Your task to perform on an android device: Open the calendar app, open the side menu, and click the "Day" option Image 0: 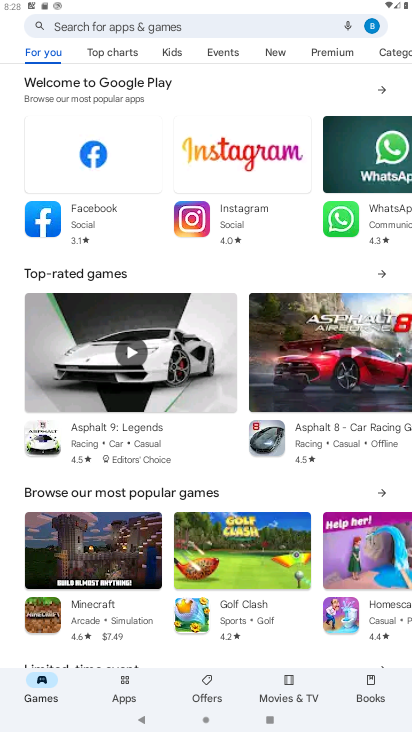
Step 0: press home button
Your task to perform on an android device: Open the calendar app, open the side menu, and click the "Day" option Image 1: 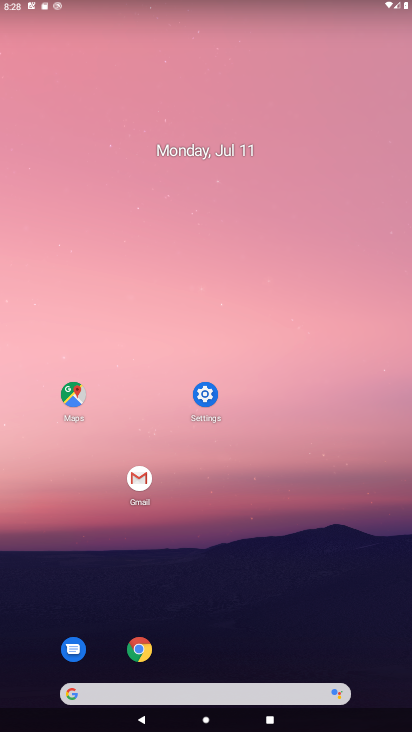
Step 1: drag from (382, 596) to (343, 131)
Your task to perform on an android device: Open the calendar app, open the side menu, and click the "Day" option Image 2: 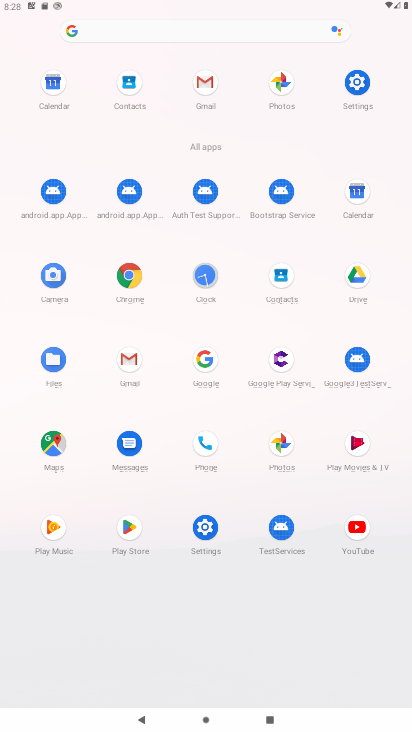
Step 2: click (358, 195)
Your task to perform on an android device: Open the calendar app, open the side menu, and click the "Day" option Image 3: 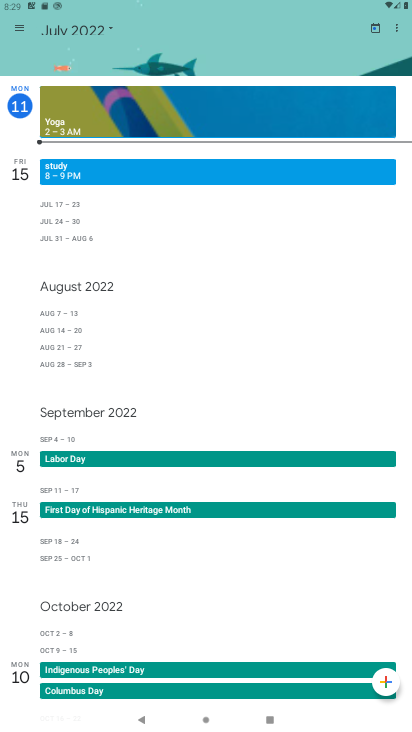
Step 3: click (14, 25)
Your task to perform on an android device: Open the calendar app, open the side menu, and click the "Day" option Image 4: 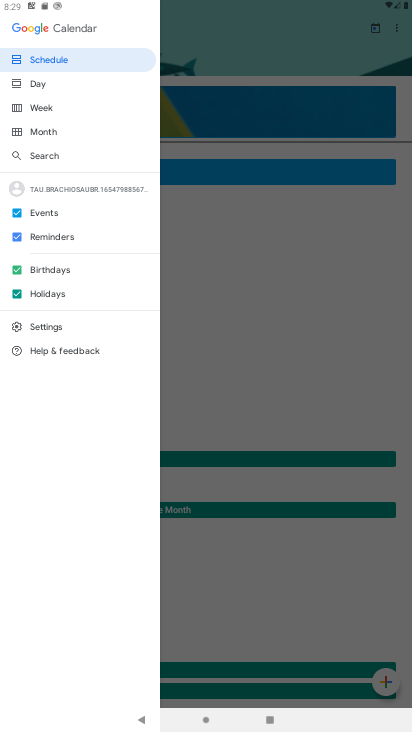
Step 4: click (36, 85)
Your task to perform on an android device: Open the calendar app, open the side menu, and click the "Day" option Image 5: 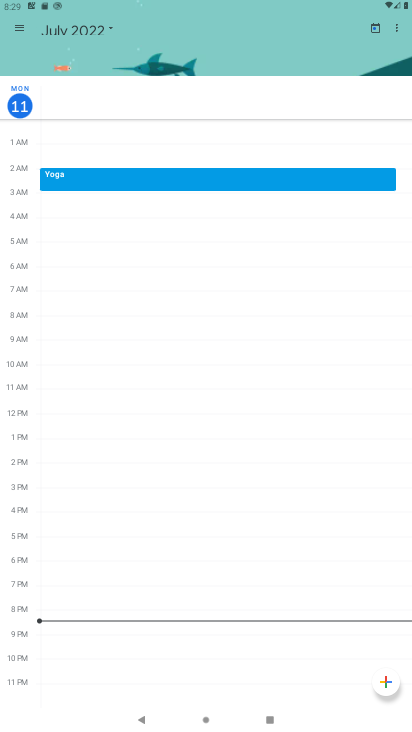
Step 5: task complete